Your task to perform on an android device: Open calendar and show me the first week of next month Image 0: 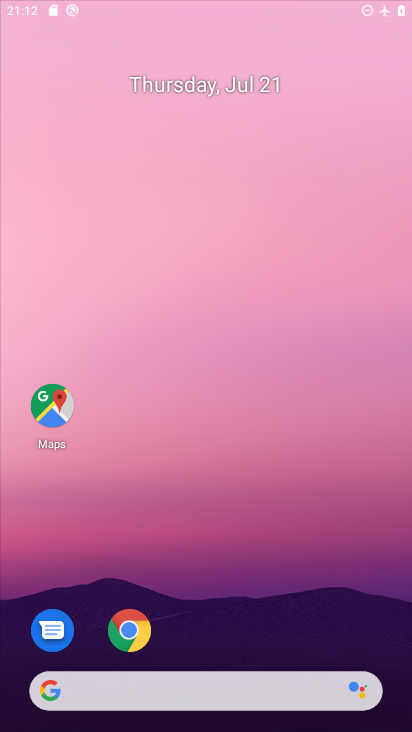
Step 0: click (293, 85)
Your task to perform on an android device: Open calendar and show me the first week of next month Image 1: 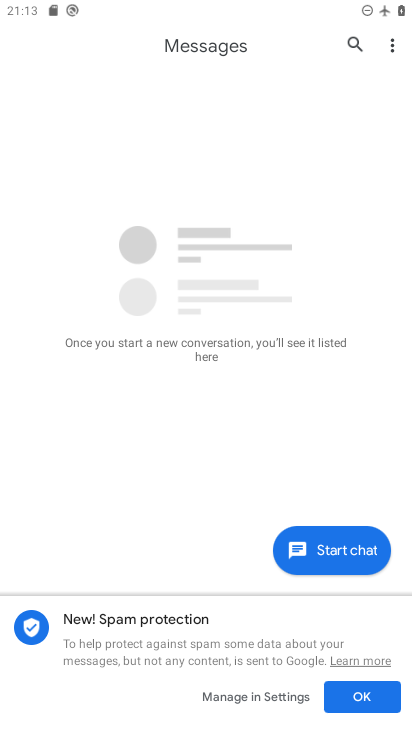
Step 1: press home button
Your task to perform on an android device: Open calendar and show me the first week of next month Image 2: 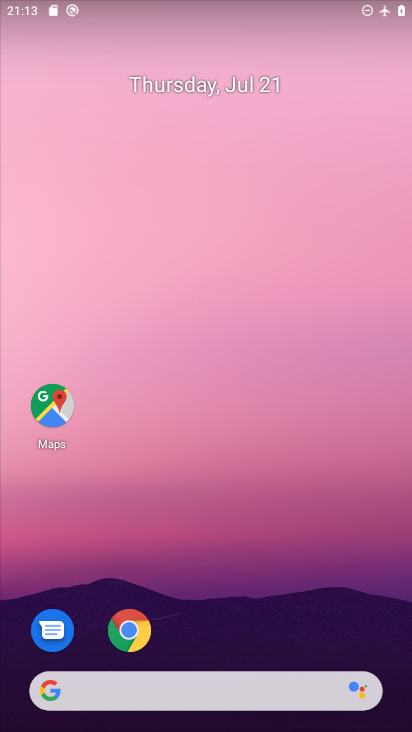
Step 2: drag from (281, 536) to (277, 112)
Your task to perform on an android device: Open calendar and show me the first week of next month Image 3: 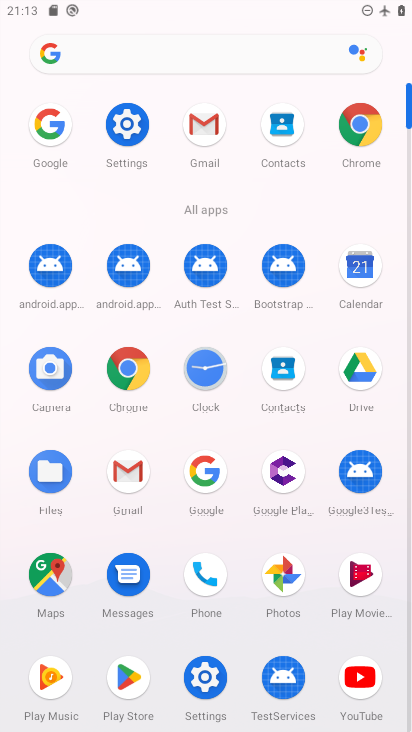
Step 3: click (356, 252)
Your task to perform on an android device: Open calendar and show me the first week of next month Image 4: 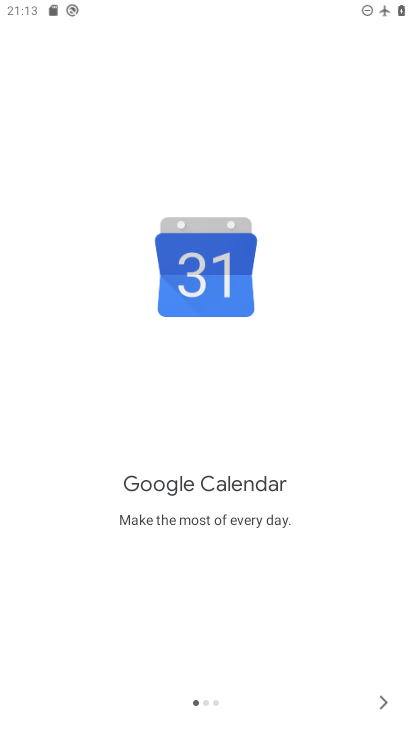
Step 4: click (377, 696)
Your task to perform on an android device: Open calendar and show me the first week of next month Image 5: 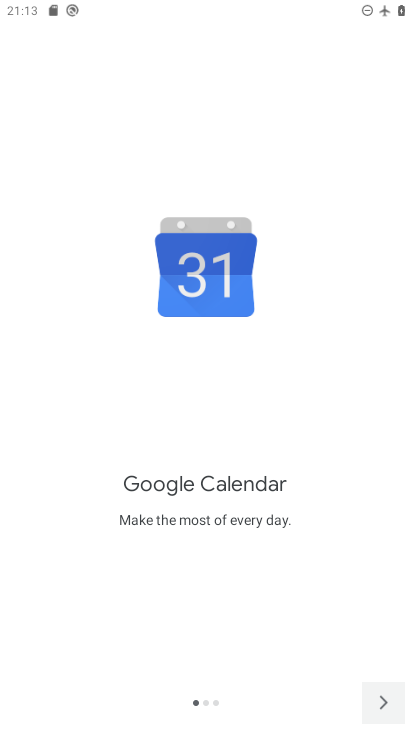
Step 5: click (377, 696)
Your task to perform on an android device: Open calendar and show me the first week of next month Image 6: 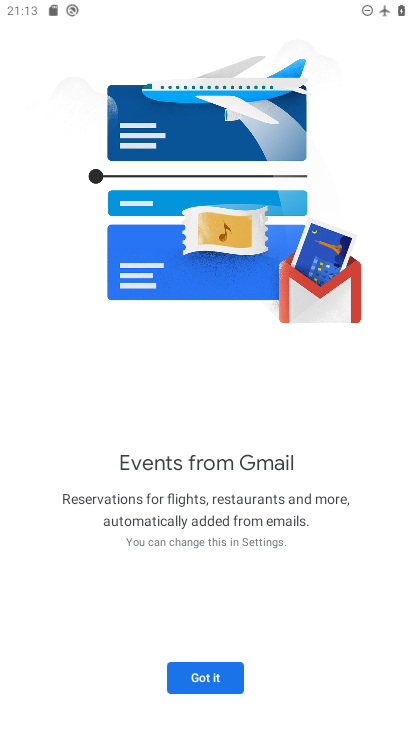
Step 6: click (377, 696)
Your task to perform on an android device: Open calendar and show me the first week of next month Image 7: 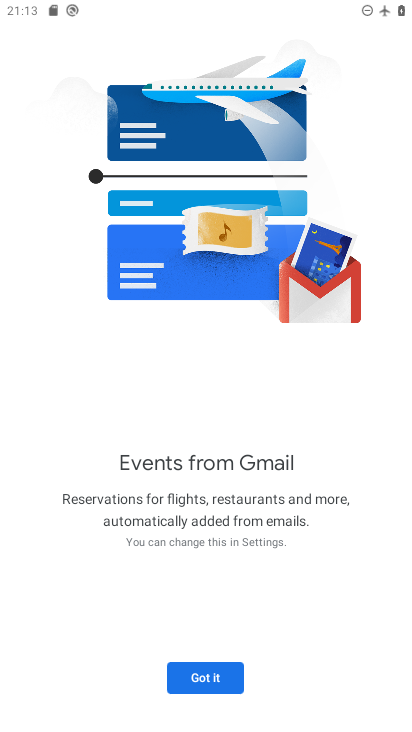
Step 7: click (214, 684)
Your task to perform on an android device: Open calendar and show me the first week of next month Image 8: 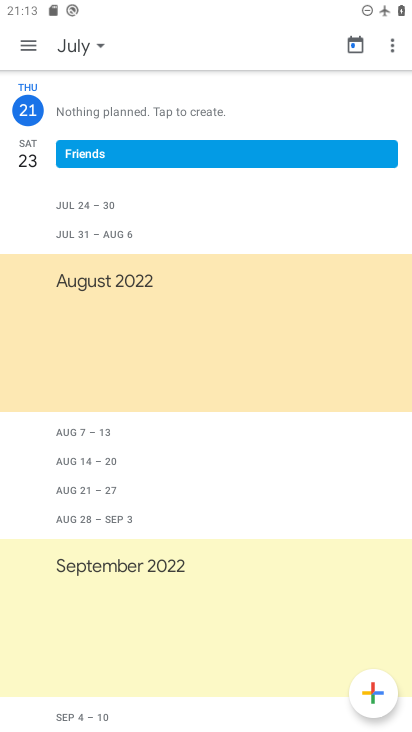
Step 8: click (67, 47)
Your task to perform on an android device: Open calendar and show me the first week of next month Image 9: 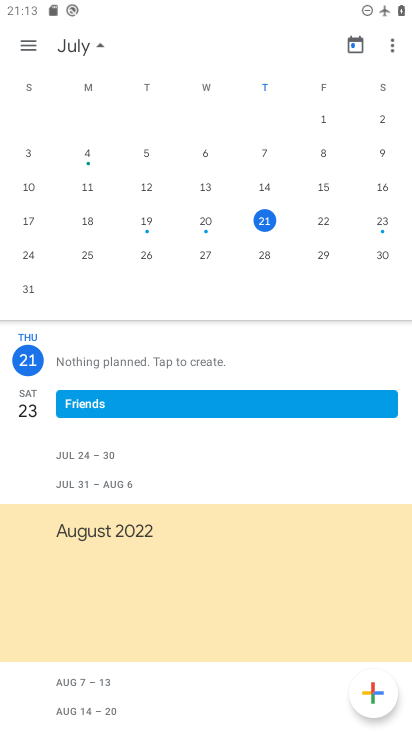
Step 9: drag from (378, 243) to (61, 245)
Your task to perform on an android device: Open calendar and show me the first week of next month Image 10: 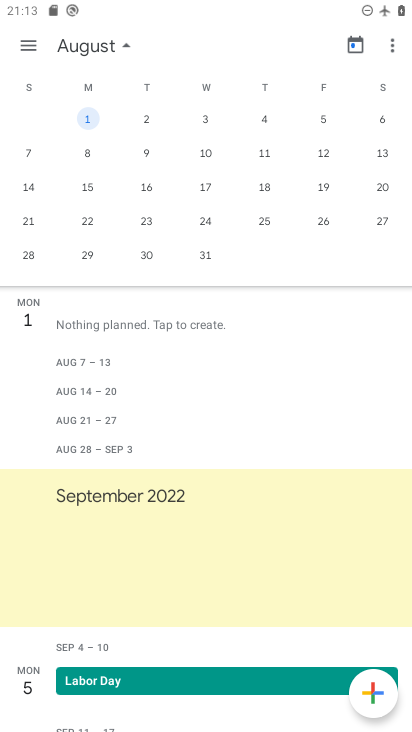
Step 10: click (23, 39)
Your task to perform on an android device: Open calendar and show me the first week of next month Image 11: 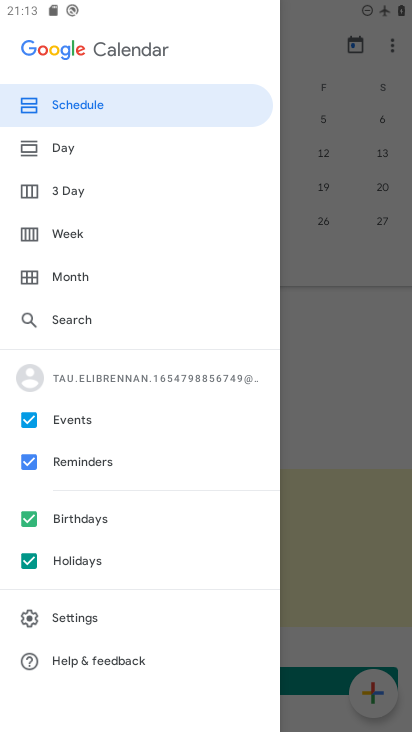
Step 11: click (73, 224)
Your task to perform on an android device: Open calendar and show me the first week of next month Image 12: 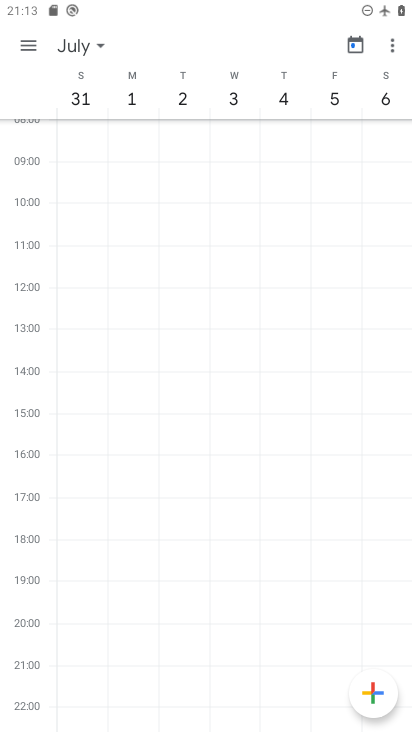
Step 12: task complete